Your task to perform on an android device: change notification settings in the gmail app Image 0: 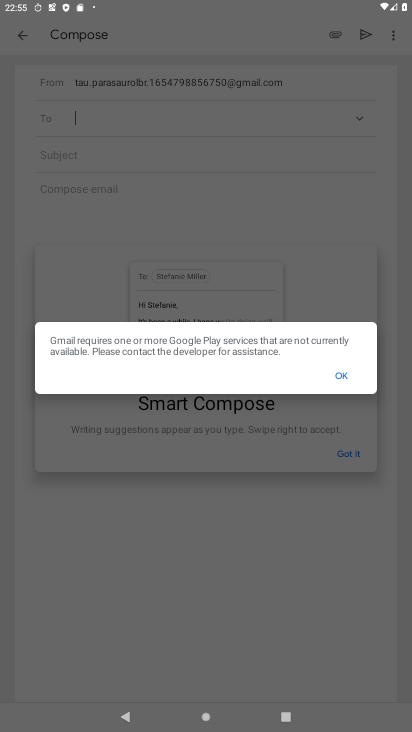
Step 0: press home button
Your task to perform on an android device: change notification settings in the gmail app Image 1: 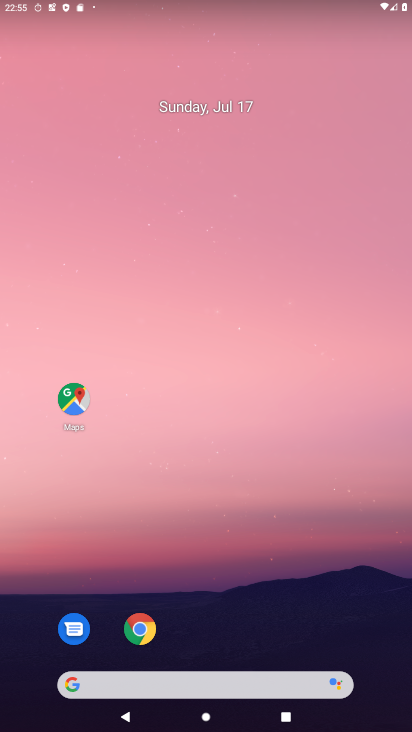
Step 1: drag from (225, 649) to (239, 99)
Your task to perform on an android device: change notification settings in the gmail app Image 2: 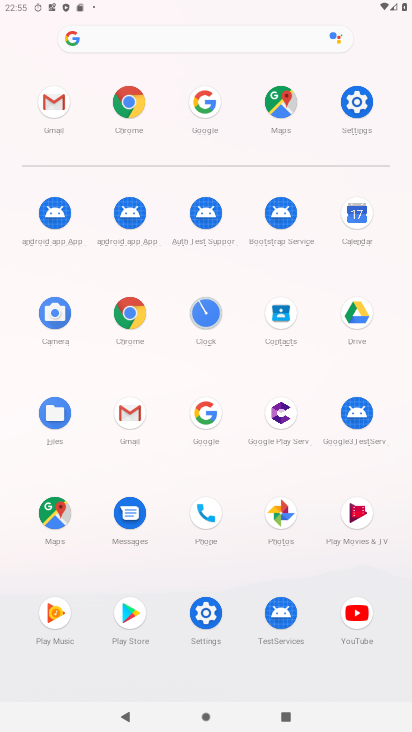
Step 2: click (129, 406)
Your task to perform on an android device: change notification settings in the gmail app Image 3: 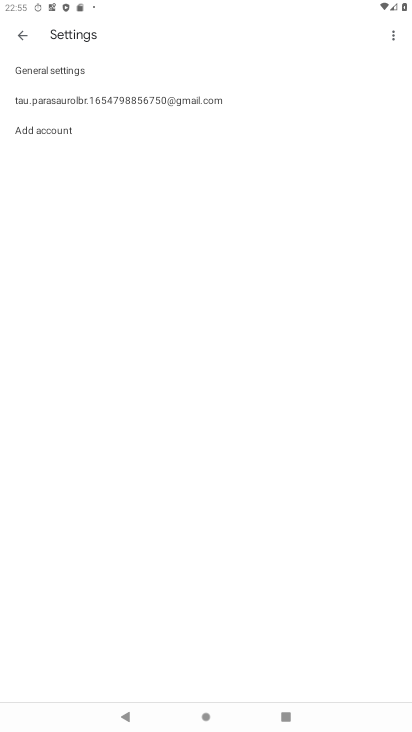
Step 3: click (132, 98)
Your task to perform on an android device: change notification settings in the gmail app Image 4: 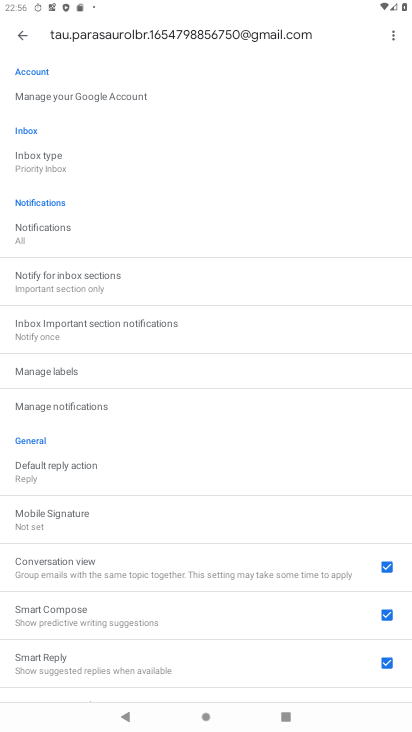
Step 4: click (52, 231)
Your task to perform on an android device: change notification settings in the gmail app Image 5: 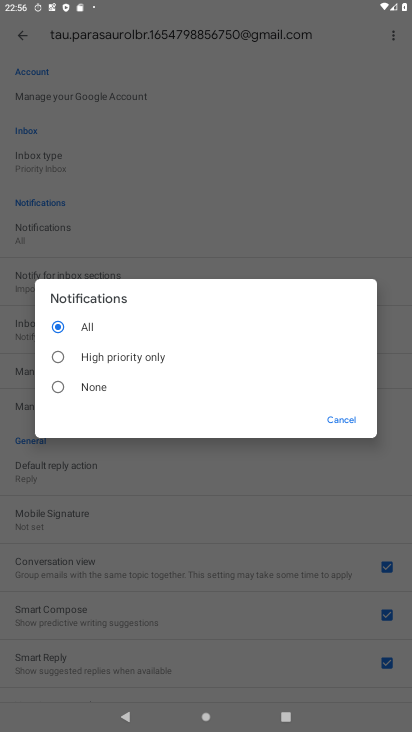
Step 5: click (56, 386)
Your task to perform on an android device: change notification settings in the gmail app Image 6: 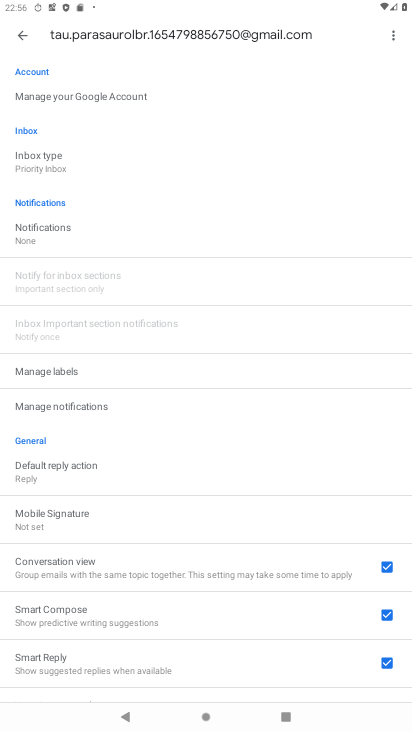
Step 6: task complete